Your task to perform on an android device: Show me popular videos on Youtube Image 0: 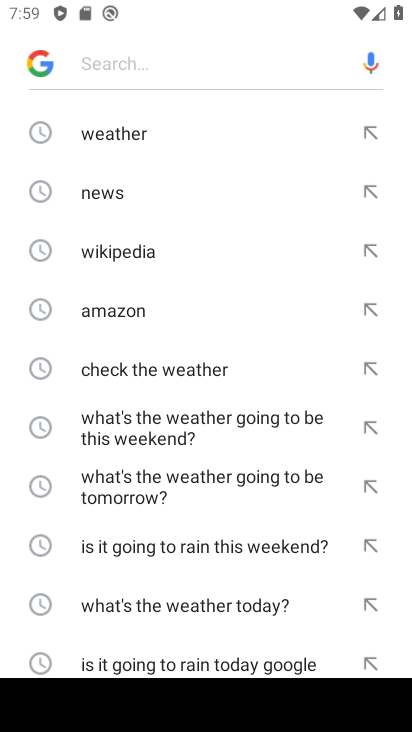
Step 0: press home button
Your task to perform on an android device: Show me popular videos on Youtube Image 1: 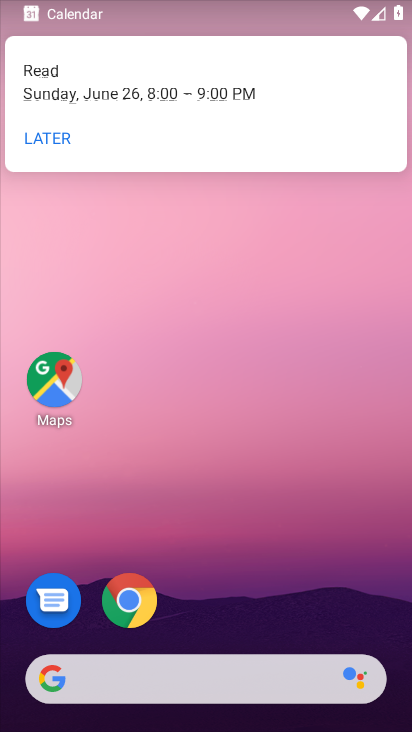
Step 1: drag from (331, 630) to (349, 125)
Your task to perform on an android device: Show me popular videos on Youtube Image 2: 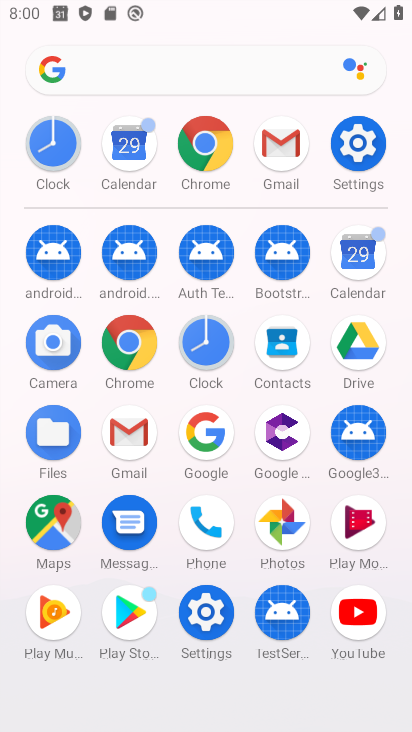
Step 2: click (367, 618)
Your task to perform on an android device: Show me popular videos on Youtube Image 3: 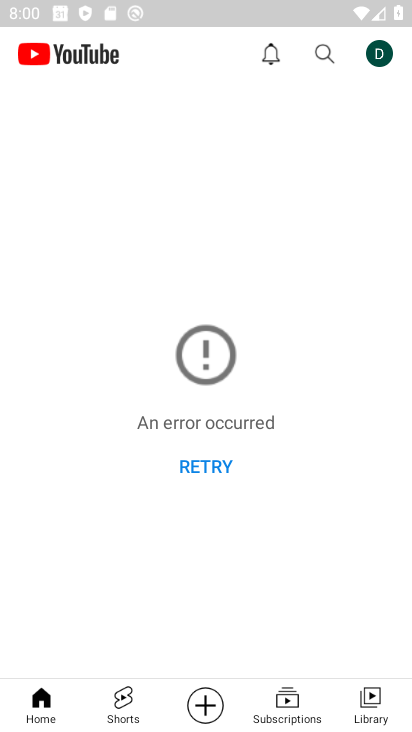
Step 3: task complete